Your task to perform on an android device: turn on improve location accuracy Image 0: 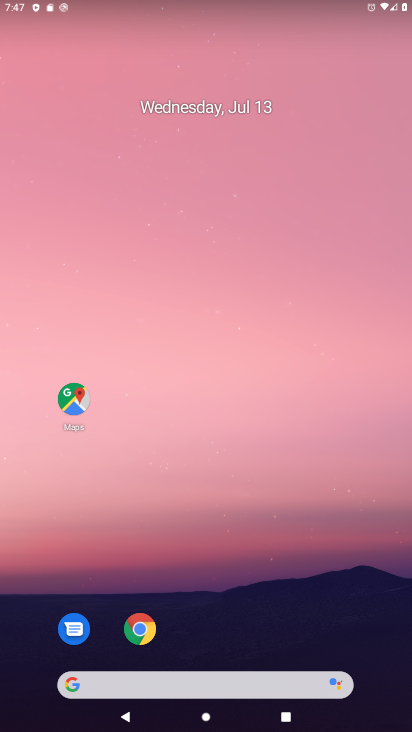
Step 0: drag from (313, 548) to (345, 77)
Your task to perform on an android device: turn on improve location accuracy Image 1: 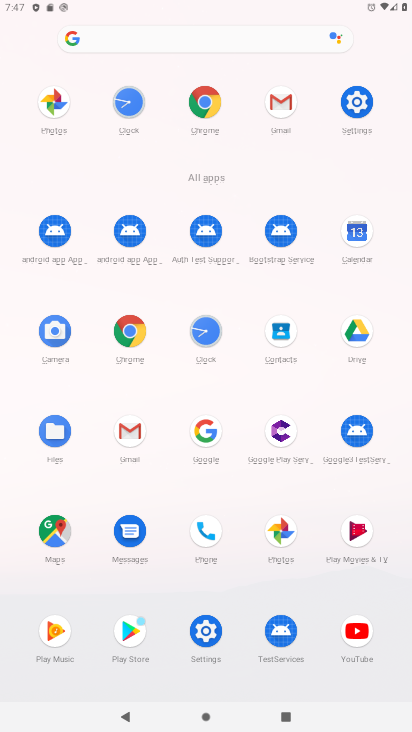
Step 1: click (360, 104)
Your task to perform on an android device: turn on improve location accuracy Image 2: 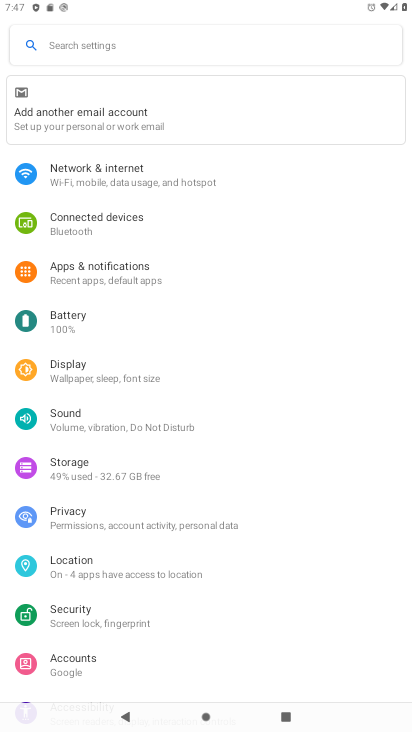
Step 2: click (70, 563)
Your task to perform on an android device: turn on improve location accuracy Image 3: 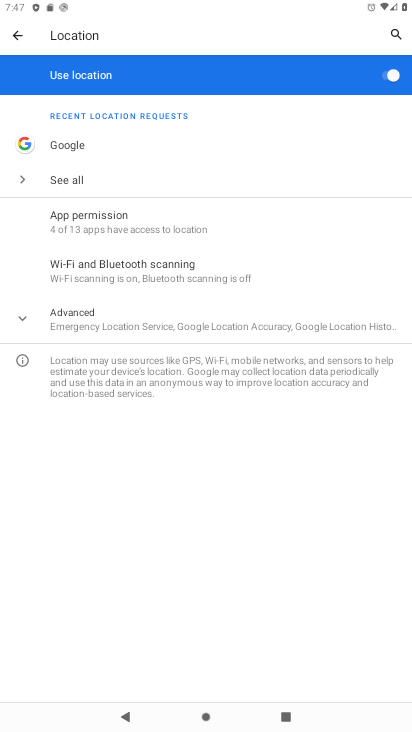
Step 3: click (122, 318)
Your task to perform on an android device: turn on improve location accuracy Image 4: 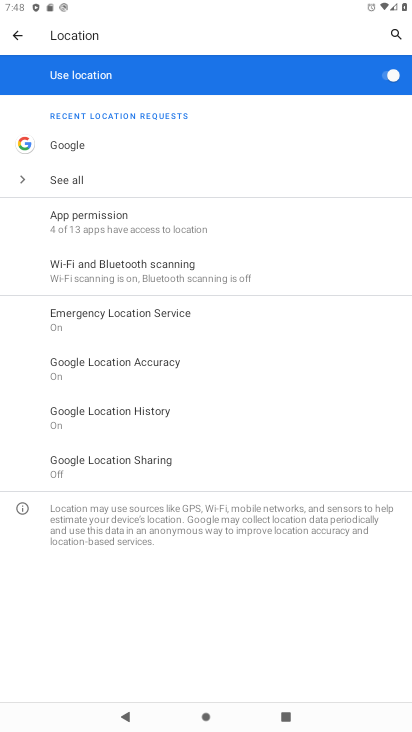
Step 4: click (125, 363)
Your task to perform on an android device: turn on improve location accuracy Image 5: 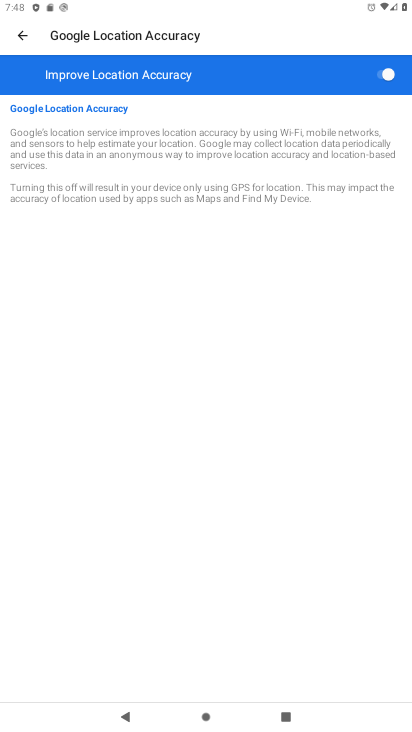
Step 5: task complete